Your task to perform on an android device: Go to battery settings Image 0: 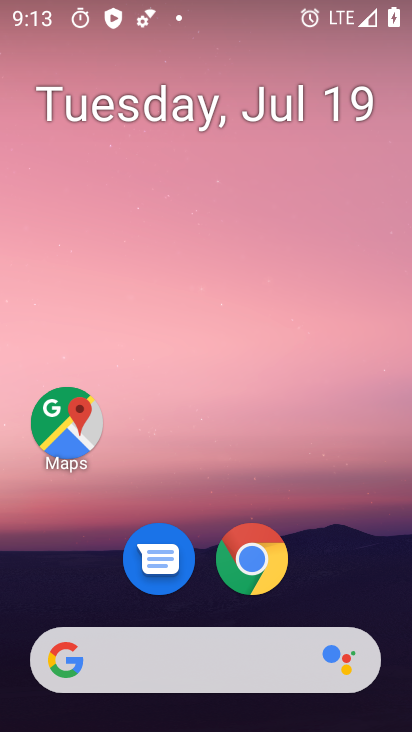
Step 0: drag from (386, 606) to (331, 148)
Your task to perform on an android device: Go to battery settings Image 1: 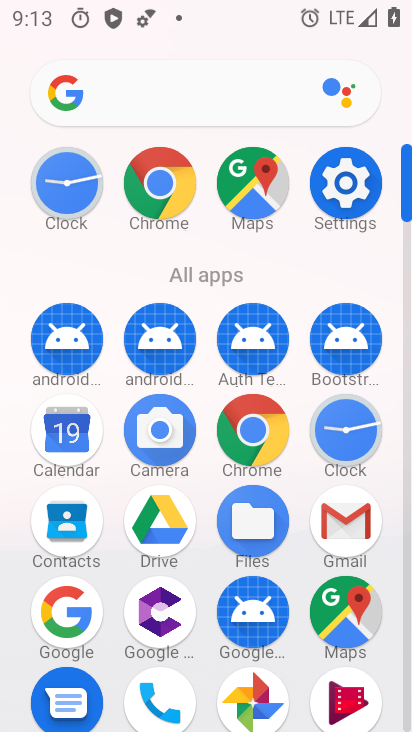
Step 1: click (355, 188)
Your task to perform on an android device: Go to battery settings Image 2: 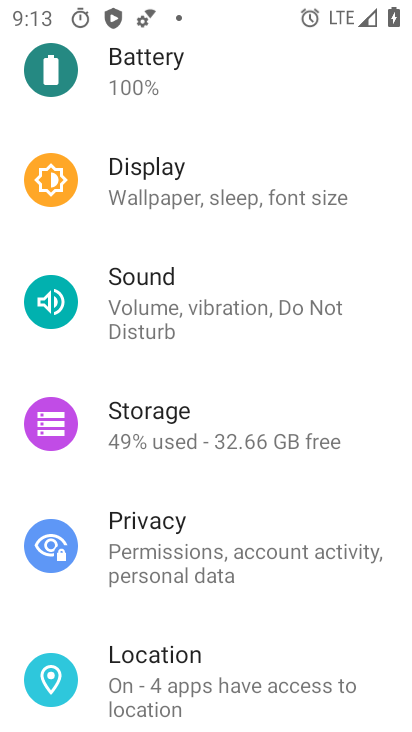
Step 2: click (169, 77)
Your task to perform on an android device: Go to battery settings Image 3: 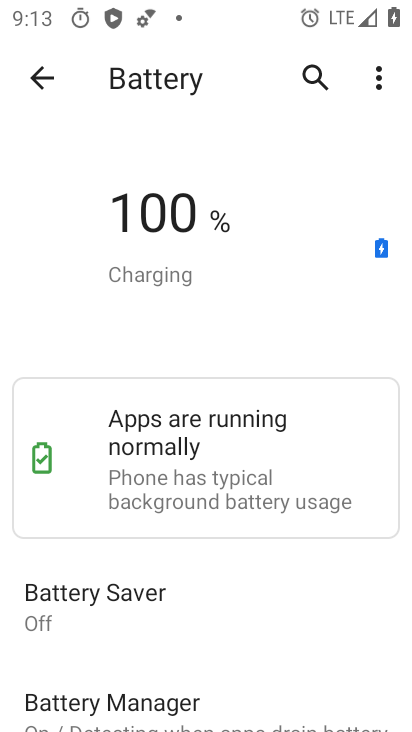
Step 3: task complete